Your task to perform on an android device: What's on my calendar today? Image 0: 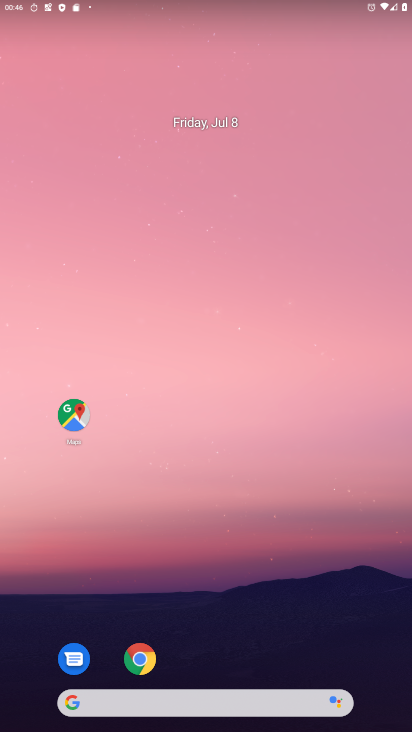
Step 0: click (171, 127)
Your task to perform on an android device: What's on my calendar today? Image 1: 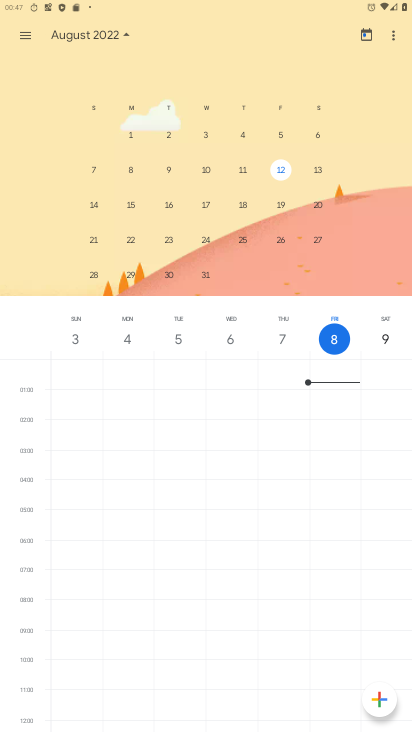
Step 1: task complete